Your task to perform on an android device: Open Google Chrome Image 0: 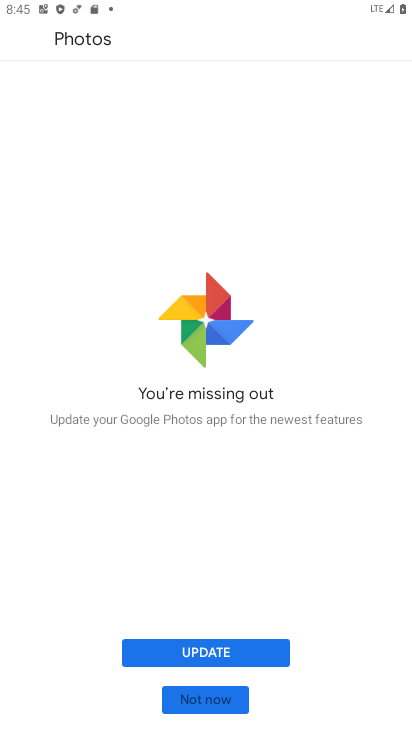
Step 0: press home button
Your task to perform on an android device: Open Google Chrome Image 1: 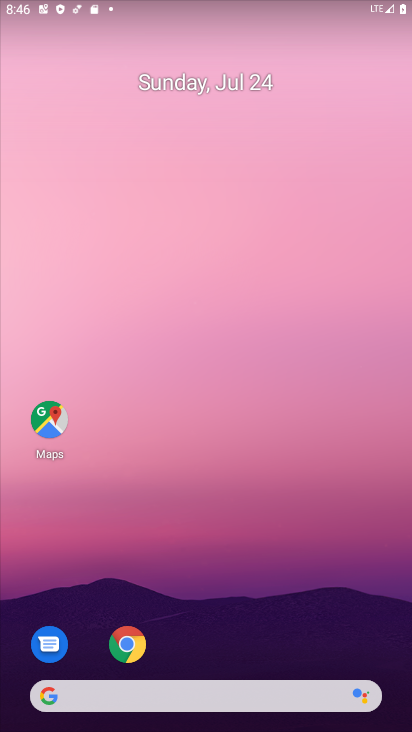
Step 1: click (115, 645)
Your task to perform on an android device: Open Google Chrome Image 2: 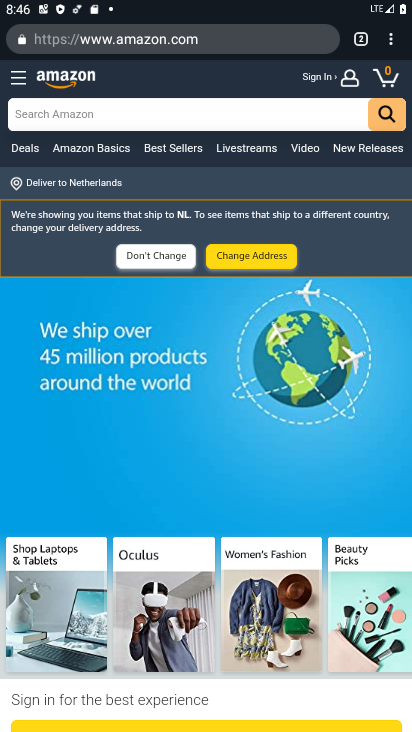
Step 2: click (364, 37)
Your task to perform on an android device: Open Google Chrome Image 3: 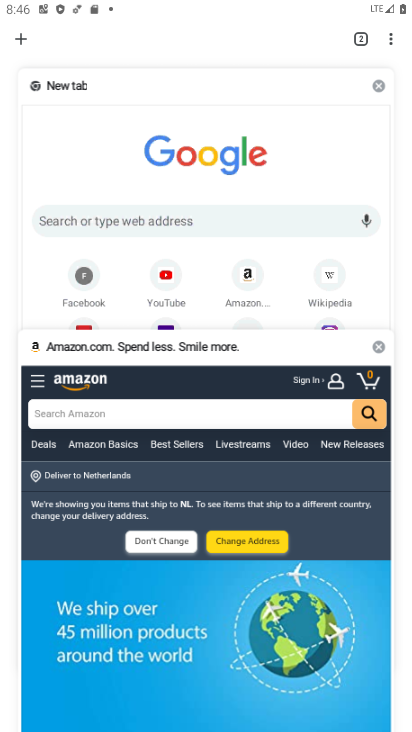
Step 3: click (373, 85)
Your task to perform on an android device: Open Google Chrome Image 4: 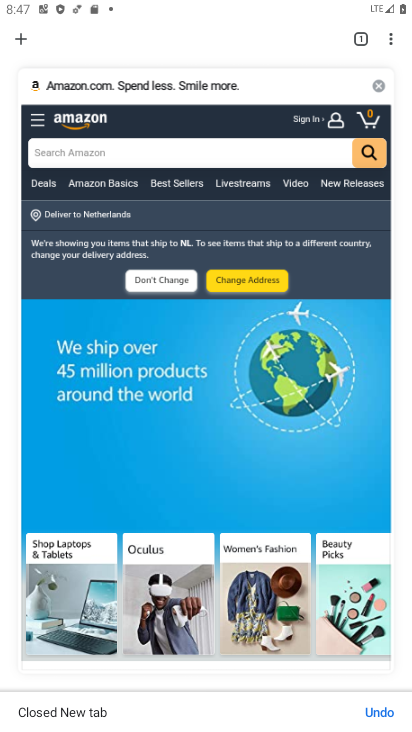
Step 4: click (373, 85)
Your task to perform on an android device: Open Google Chrome Image 5: 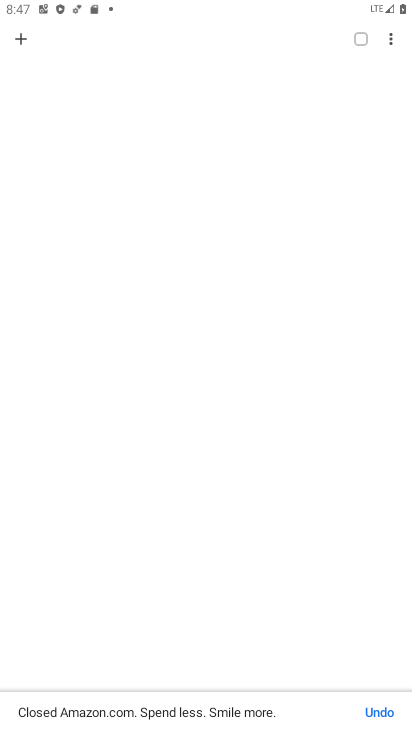
Step 5: click (16, 39)
Your task to perform on an android device: Open Google Chrome Image 6: 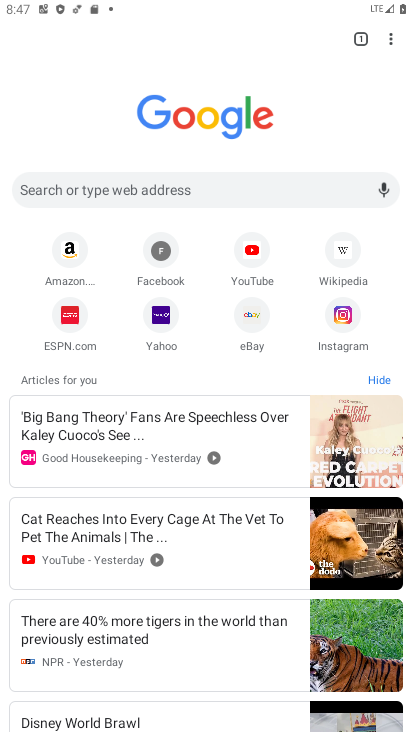
Step 6: task complete